Your task to perform on an android device: open sync settings in chrome Image 0: 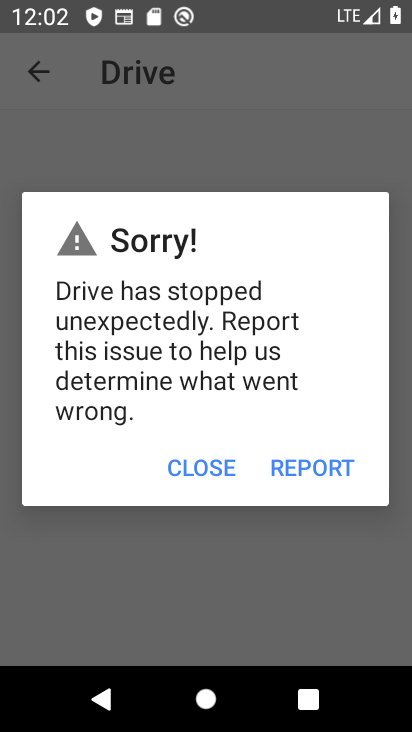
Step 0: press home button
Your task to perform on an android device: open sync settings in chrome Image 1: 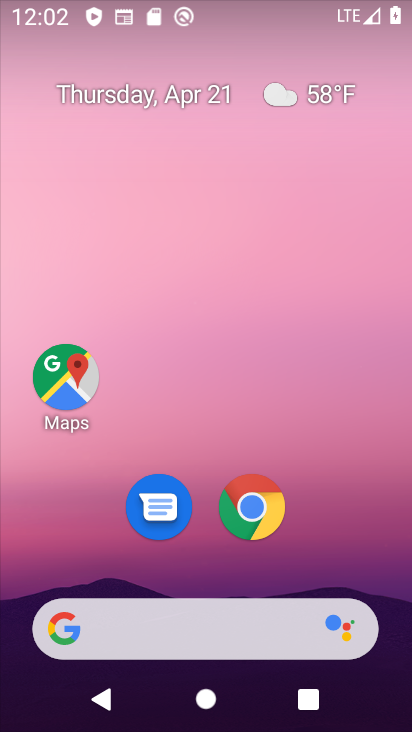
Step 1: drag from (330, 509) to (348, 210)
Your task to perform on an android device: open sync settings in chrome Image 2: 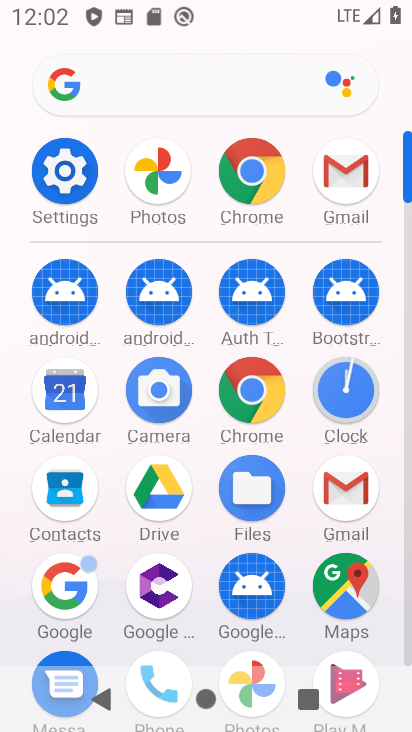
Step 2: click (269, 391)
Your task to perform on an android device: open sync settings in chrome Image 3: 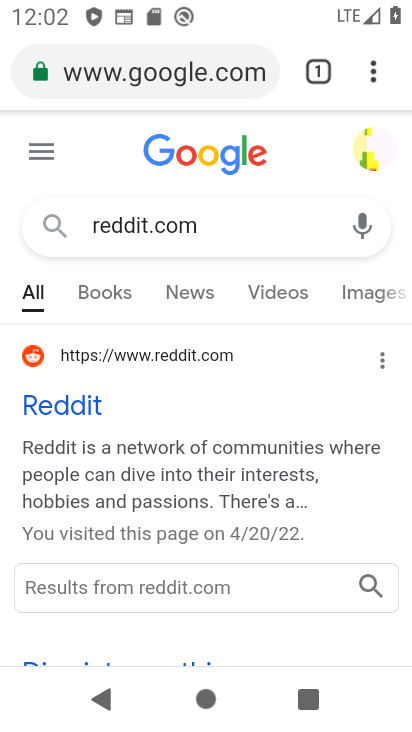
Step 3: click (374, 77)
Your task to perform on an android device: open sync settings in chrome Image 4: 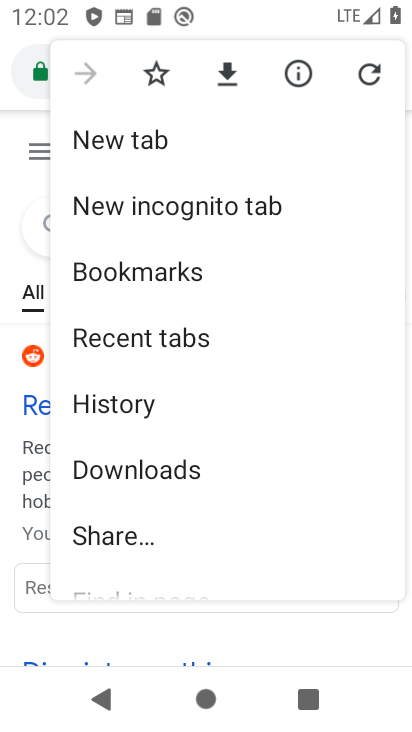
Step 4: drag from (313, 484) to (320, 348)
Your task to perform on an android device: open sync settings in chrome Image 5: 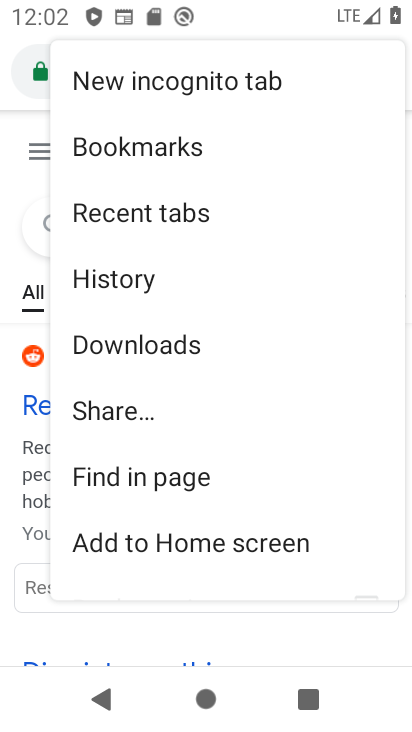
Step 5: drag from (326, 485) to (311, 299)
Your task to perform on an android device: open sync settings in chrome Image 6: 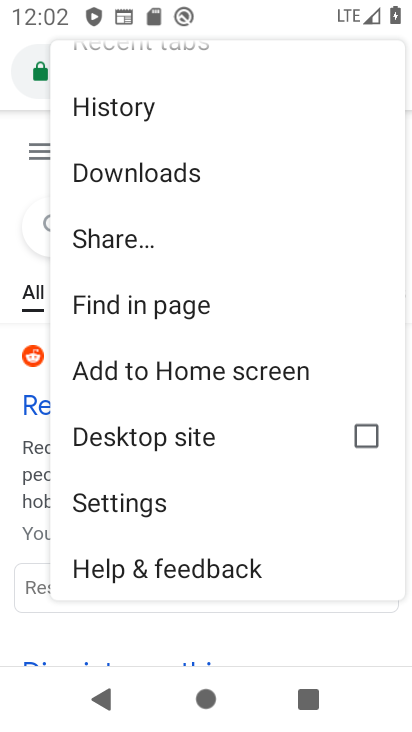
Step 6: drag from (314, 511) to (320, 317)
Your task to perform on an android device: open sync settings in chrome Image 7: 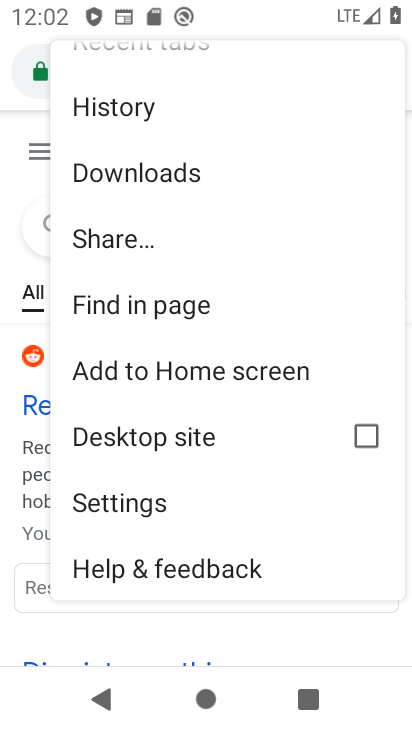
Step 7: click (162, 500)
Your task to perform on an android device: open sync settings in chrome Image 8: 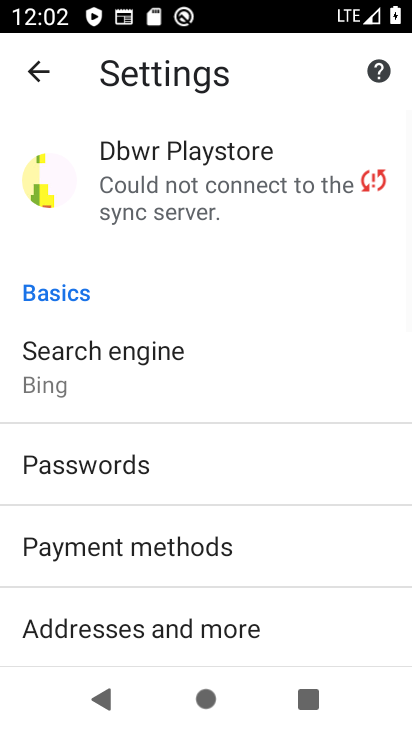
Step 8: drag from (346, 587) to (340, 456)
Your task to perform on an android device: open sync settings in chrome Image 9: 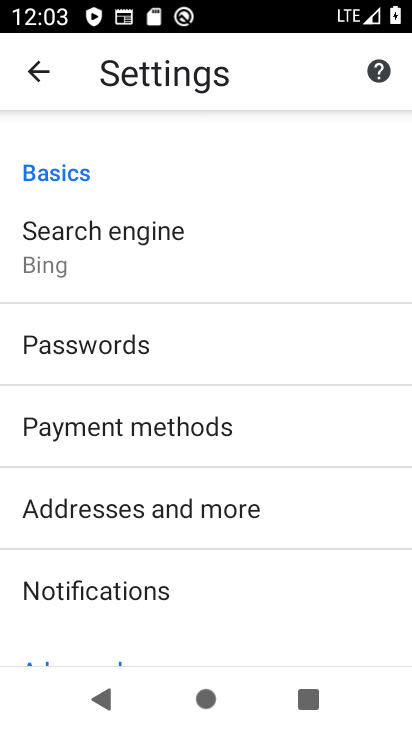
Step 9: drag from (343, 567) to (333, 416)
Your task to perform on an android device: open sync settings in chrome Image 10: 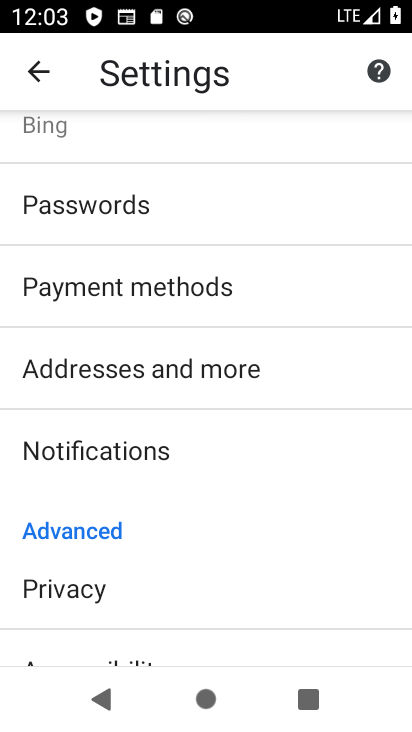
Step 10: drag from (333, 576) to (335, 423)
Your task to perform on an android device: open sync settings in chrome Image 11: 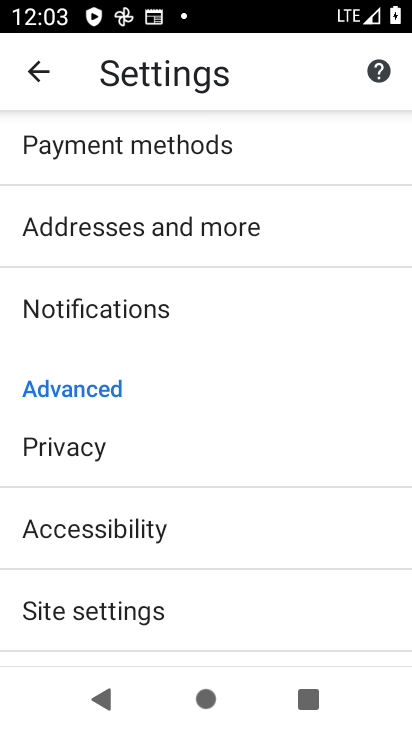
Step 11: drag from (344, 584) to (312, 452)
Your task to perform on an android device: open sync settings in chrome Image 12: 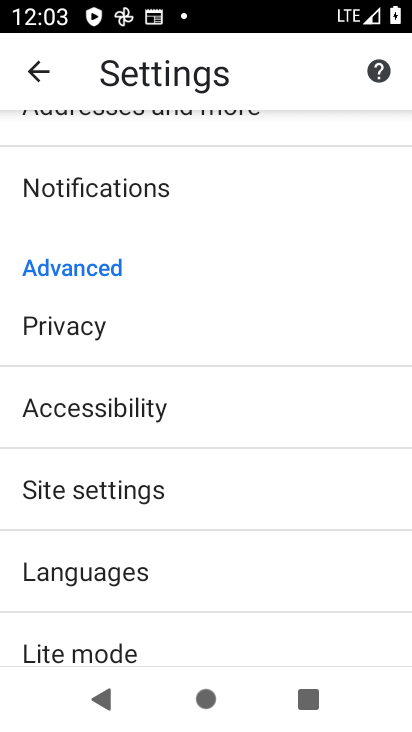
Step 12: drag from (304, 638) to (306, 475)
Your task to perform on an android device: open sync settings in chrome Image 13: 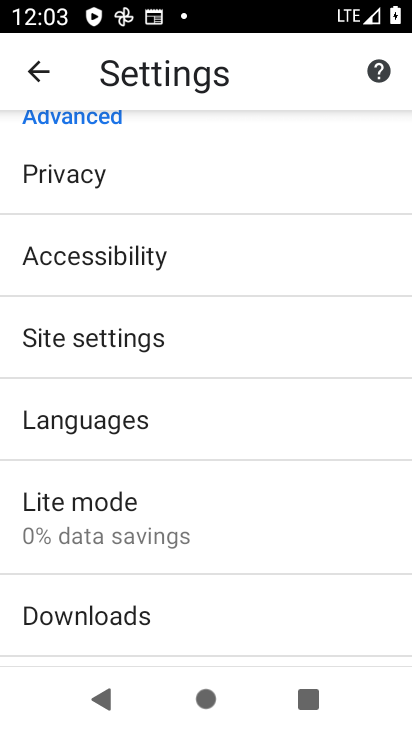
Step 13: drag from (298, 563) to (307, 435)
Your task to perform on an android device: open sync settings in chrome Image 14: 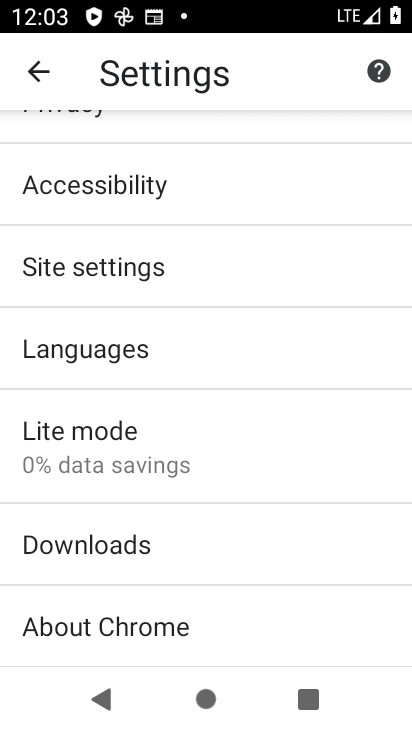
Step 14: drag from (303, 579) to (302, 465)
Your task to perform on an android device: open sync settings in chrome Image 15: 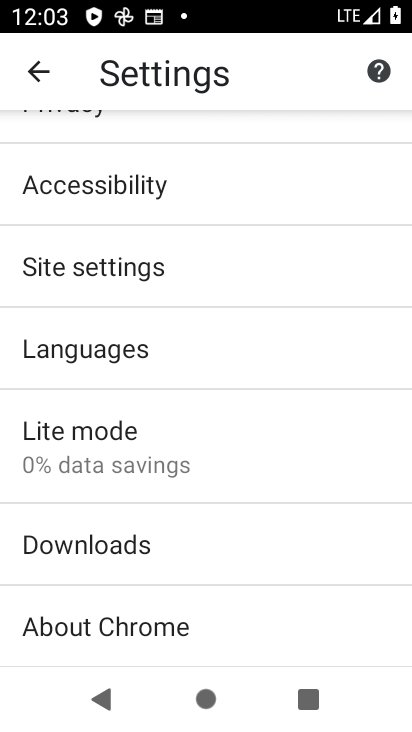
Step 15: click (248, 273)
Your task to perform on an android device: open sync settings in chrome Image 16: 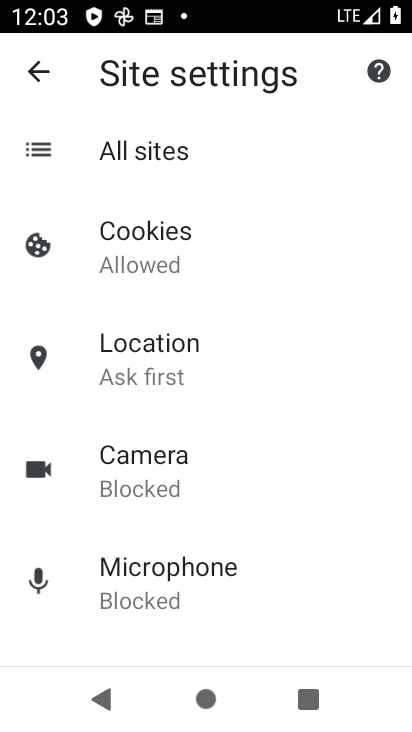
Step 16: drag from (322, 552) to (328, 417)
Your task to perform on an android device: open sync settings in chrome Image 17: 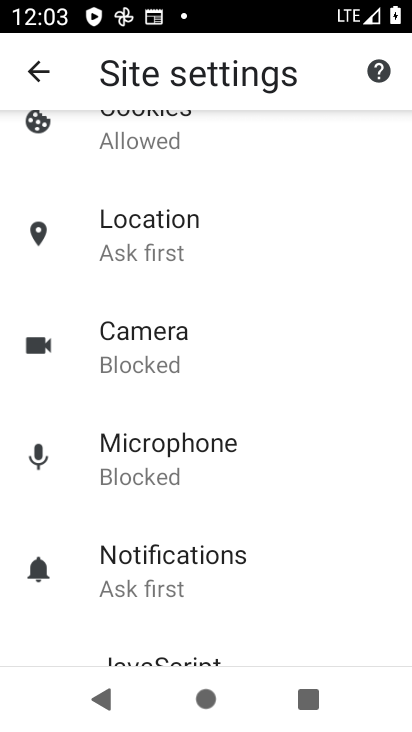
Step 17: drag from (331, 574) to (332, 435)
Your task to perform on an android device: open sync settings in chrome Image 18: 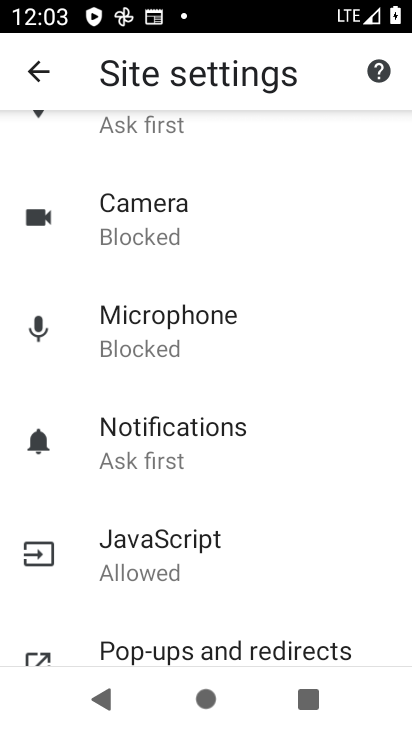
Step 18: drag from (331, 426) to (327, 371)
Your task to perform on an android device: open sync settings in chrome Image 19: 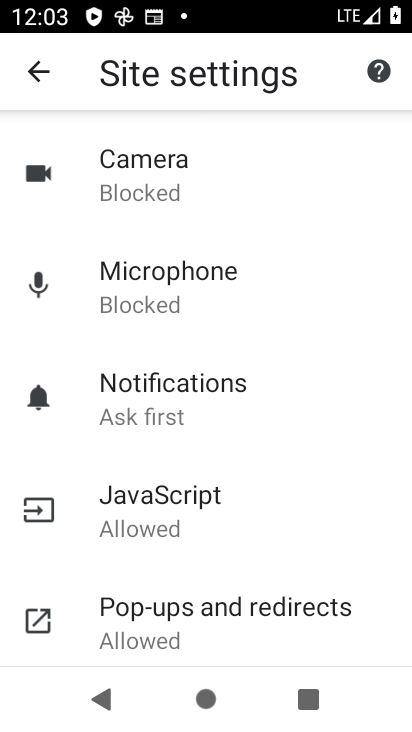
Step 19: drag from (348, 542) to (357, 397)
Your task to perform on an android device: open sync settings in chrome Image 20: 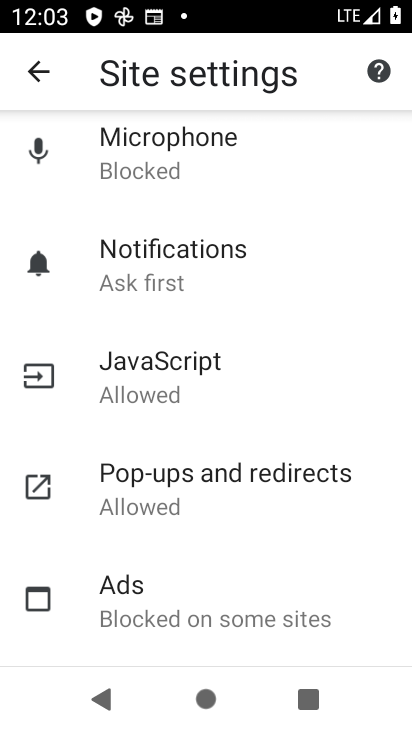
Step 20: drag from (363, 540) to (361, 384)
Your task to perform on an android device: open sync settings in chrome Image 21: 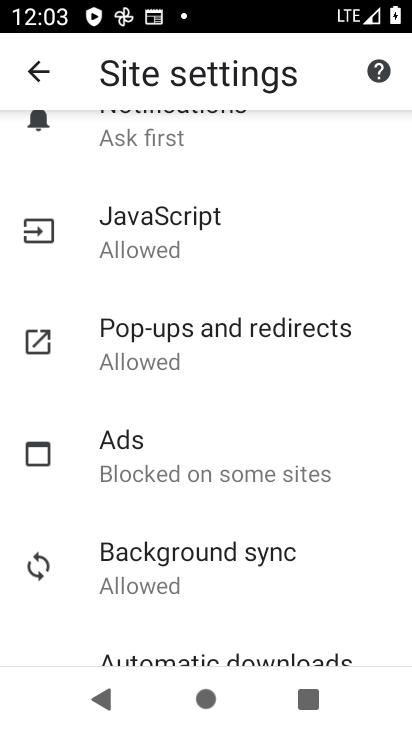
Step 21: drag from (355, 579) to (356, 365)
Your task to perform on an android device: open sync settings in chrome Image 22: 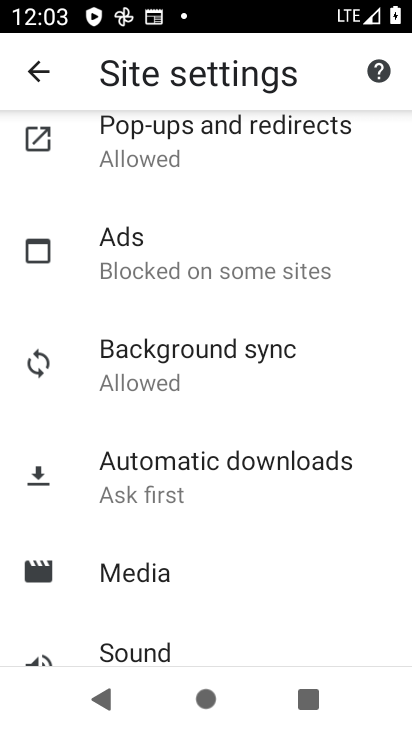
Step 22: click (180, 393)
Your task to perform on an android device: open sync settings in chrome Image 23: 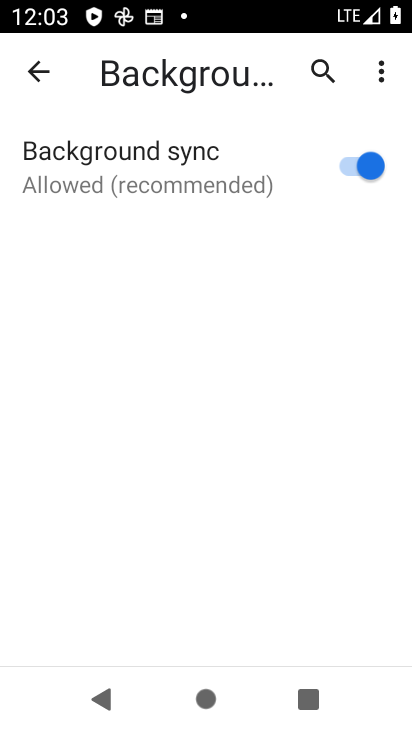
Step 23: task complete